Your task to perform on an android device: Do I have any events this weekend? Image 0: 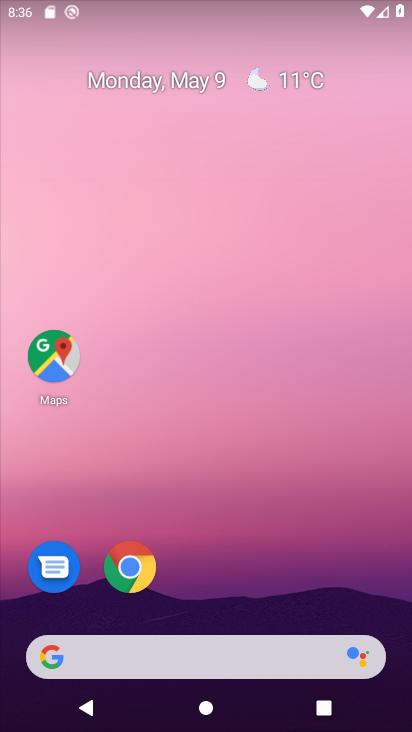
Step 0: drag from (268, 516) to (230, 0)
Your task to perform on an android device: Do I have any events this weekend? Image 1: 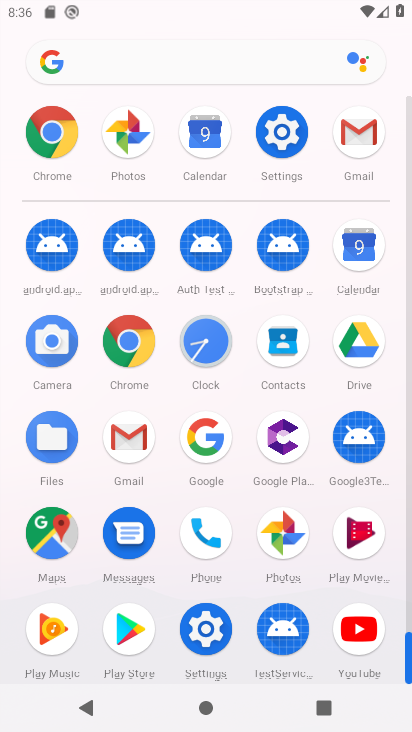
Step 1: click (199, 123)
Your task to perform on an android device: Do I have any events this weekend? Image 2: 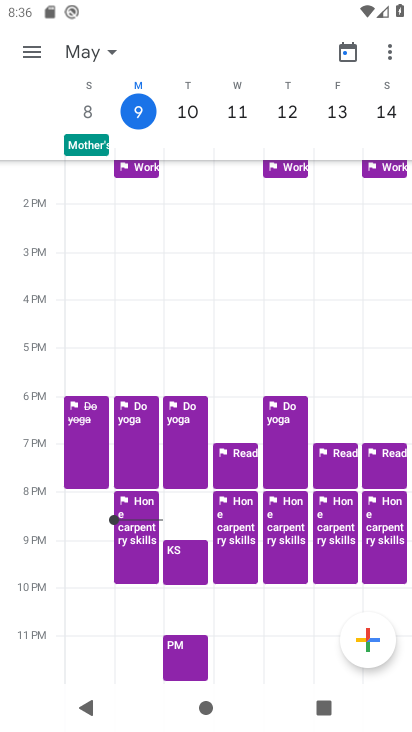
Step 2: click (384, 104)
Your task to perform on an android device: Do I have any events this weekend? Image 3: 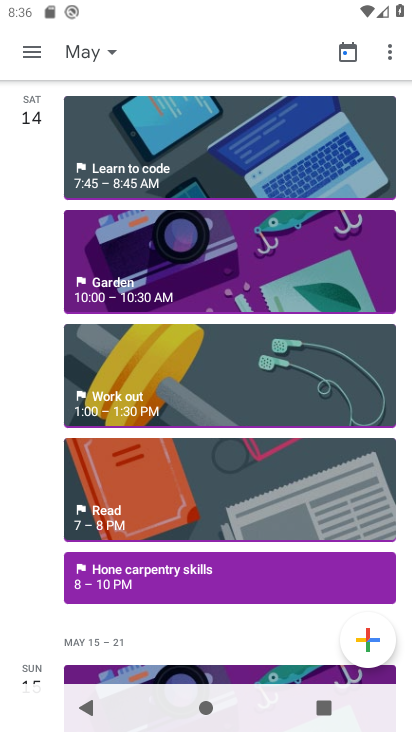
Step 3: task complete